Your task to perform on an android device: turn off location history Image 0: 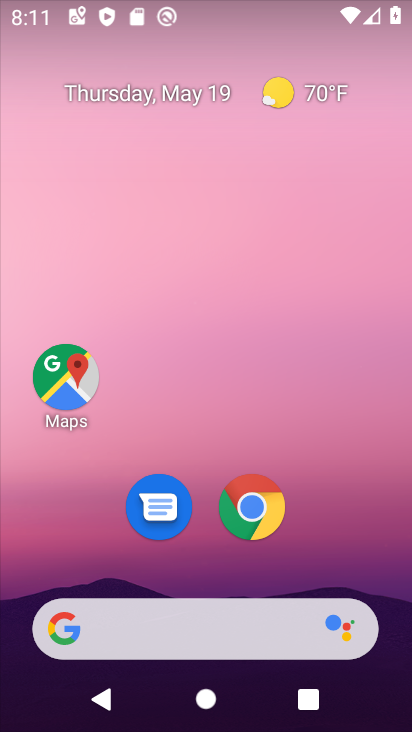
Step 0: drag from (222, 577) to (223, 140)
Your task to perform on an android device: turn off location history Image 1: 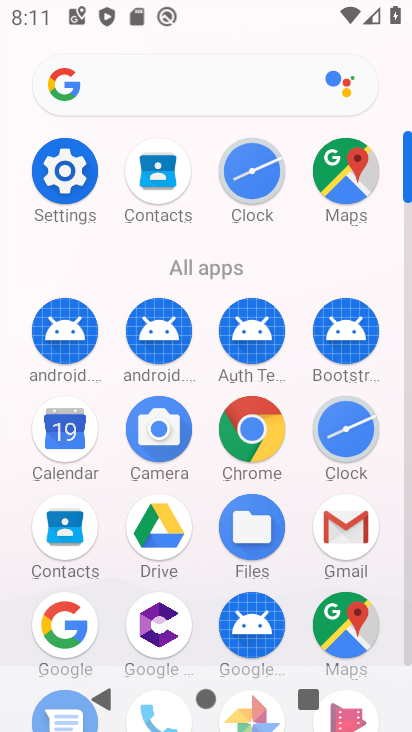
Step 1: click (93, 190)
Your task to perform on an android device: turn off location history Image 2: 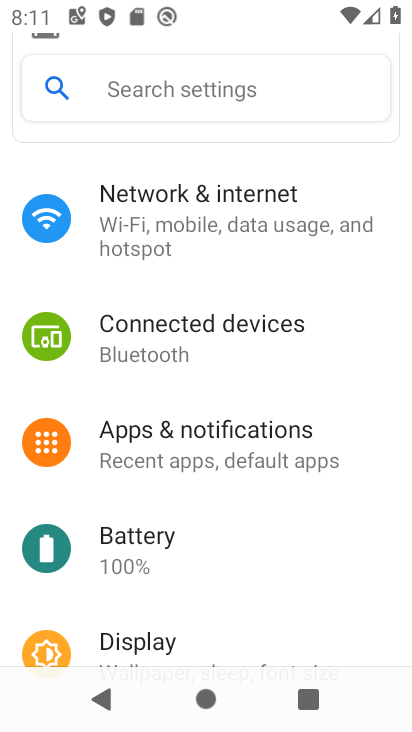
Step 2: drag from (246, 587) to (250, 233)
Your task to perform on an android device: turn off location history Image 3: 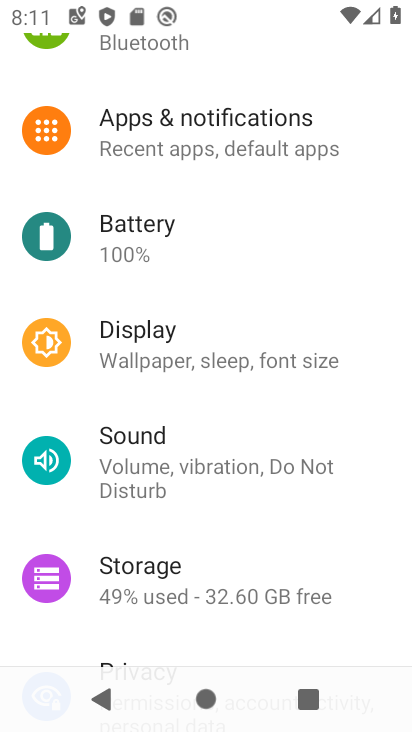
Step 3: drag from (199, 525) to (229, 257)
Your task to perform on an android device: turn off location history Image 4: 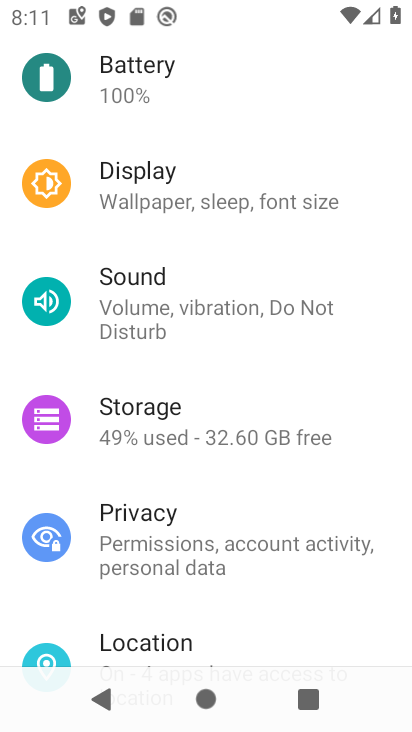
Step 4: drag from (216, 519) to (245, 317)
Your task to perform on an android device: turn off location history Image 5: 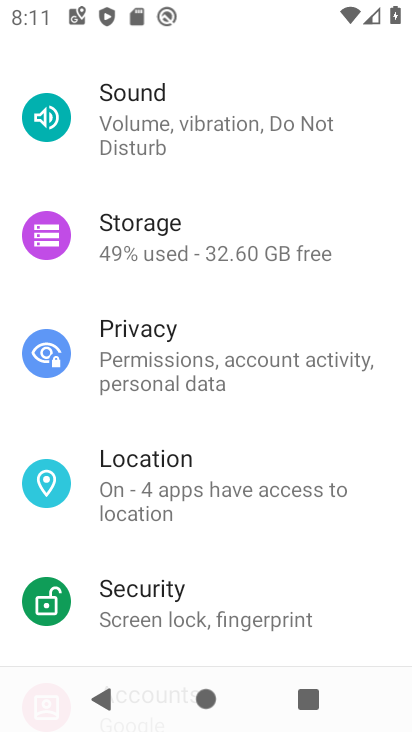
Step 5: click (211, 472)
Your task to perform on an android device: turn off location history Image 6: 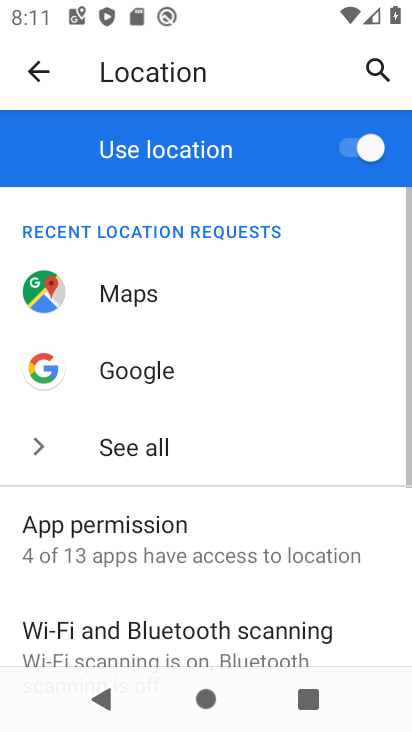
Step 6: drag from (257, 595) to (274, 285)
Your task to perform on an android device: turn off location history Image 7: 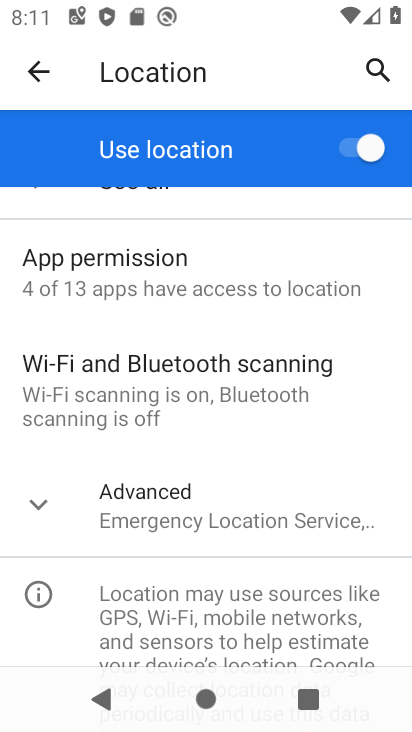
Step 7: click (218, 508)
Your task to perform on an android device: turn off location history Image 8: 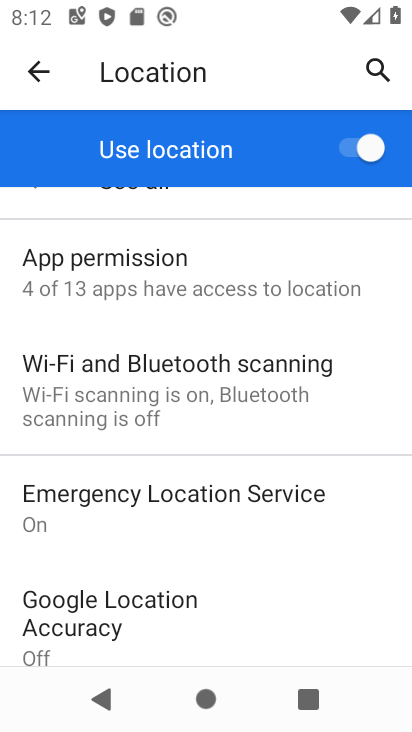
Step 8: drag from (233, 589) to (247, 399)
Your task to perform on an android device: turn off location history Image 9: 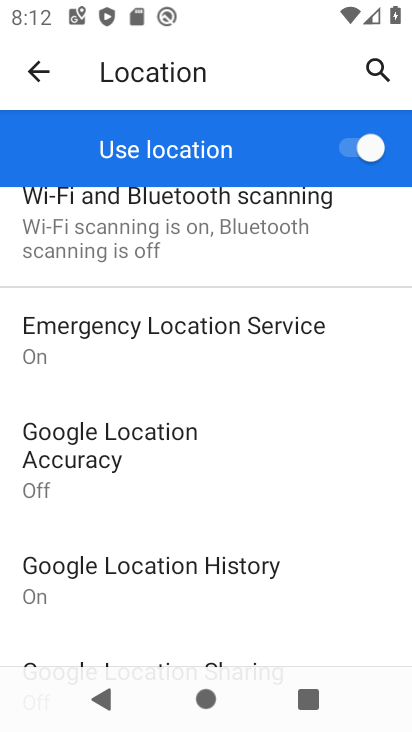
Step 9: click (220, 568)
Your task to perform on an android device: turn off location history Image 10: 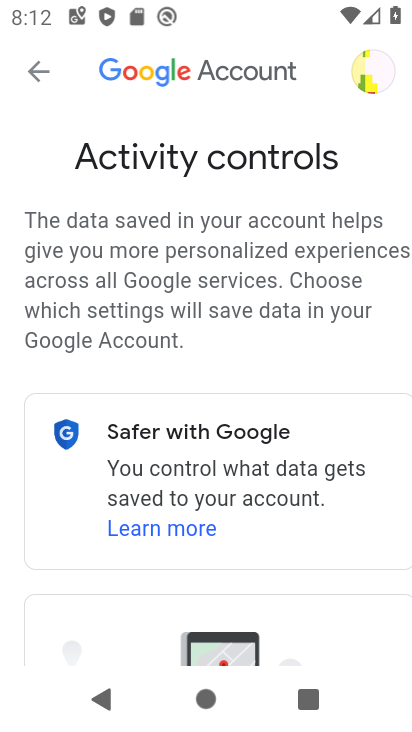
Step 10: drag from (310, 599) to (325, 305)
Your task to perform on an android device: turn off location history Image 11: 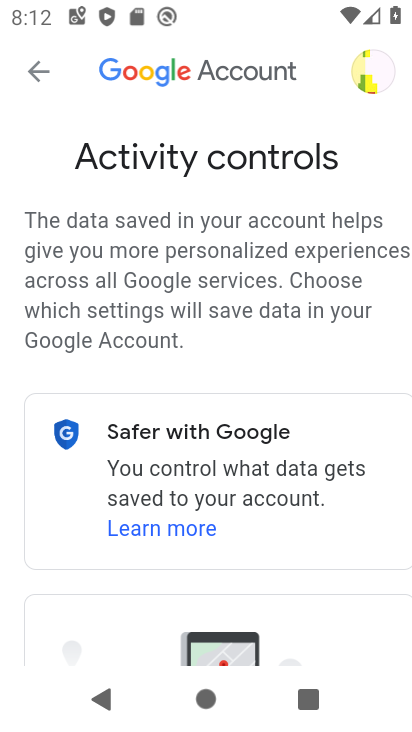
Step 11: drag from (310, 596) to (278, 322)
Your task to perform on an android device: turn off location history Image 12: 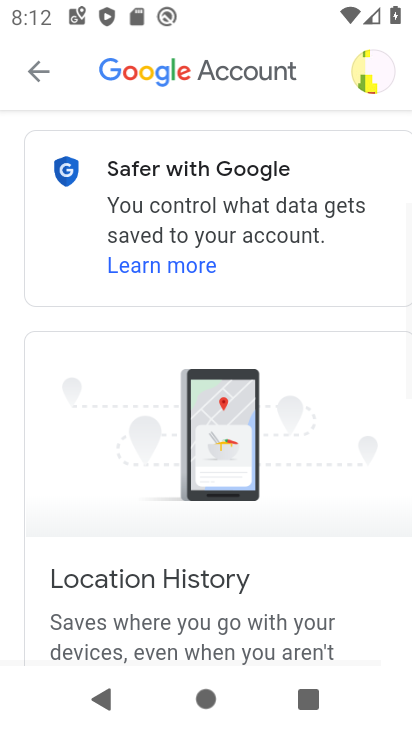
Step 12: drag from (272, 579) to (279, 353)
Your task to perform on an android device: turn off location history Image 13: 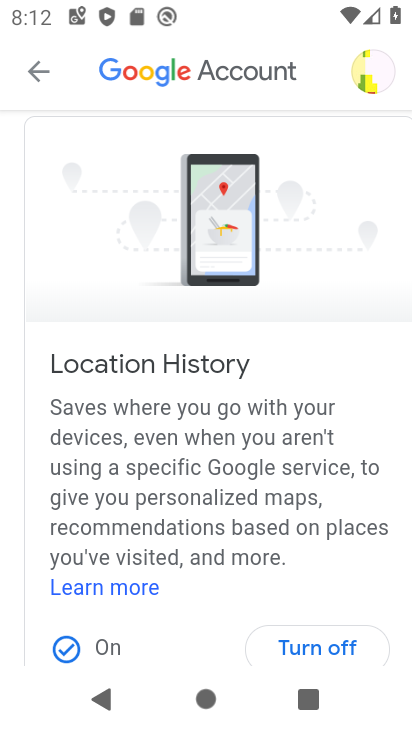
Step 13: drag from (264, 568) to (271, 387)
Your task to perform on an android device: turn off location history Image 14: 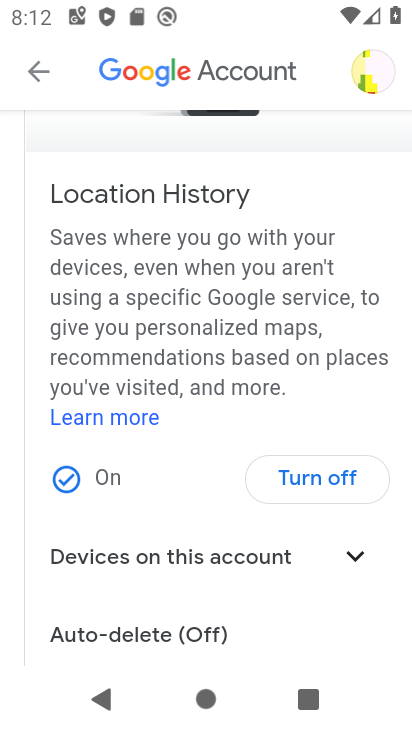
Step 14: click (282, 470)
Your task to perform on an android device: turn off location history Image 15: 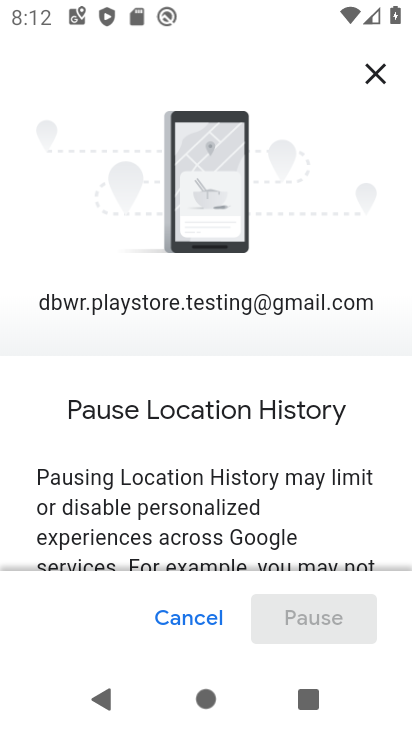
Step 15: drag from (231, 481) to (246, 190)
Your task to perform on an android device: turn off location history Image 16: 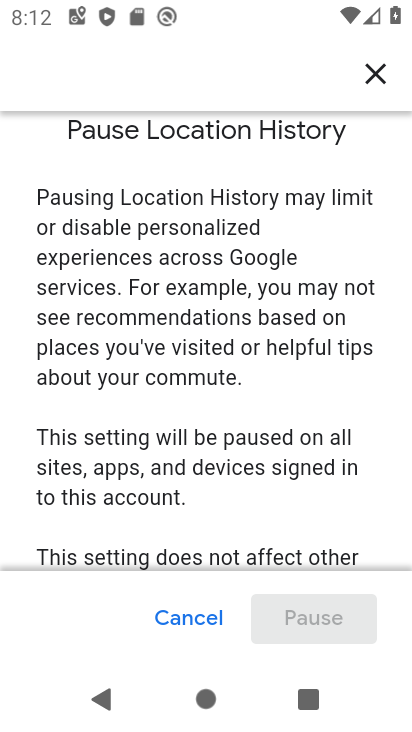
Step 16: drag from (246, 504) to (246, 325)
Your task to perform on an android device: turn off location history Image 17: 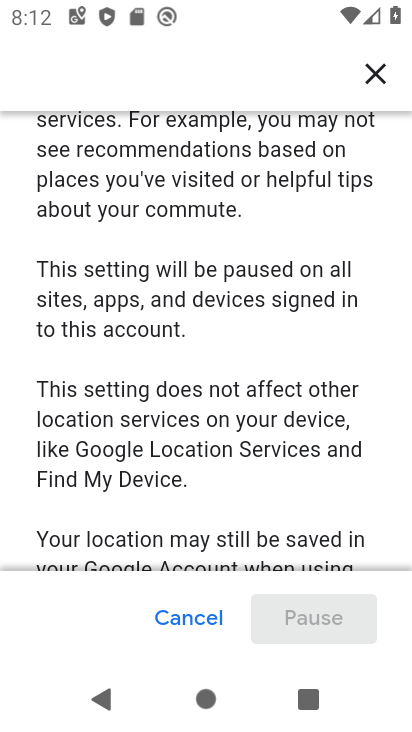
Step 17: drag from (229, 488) to (233, 162)
Your task to perform on an android device: turn off location history Image 18: 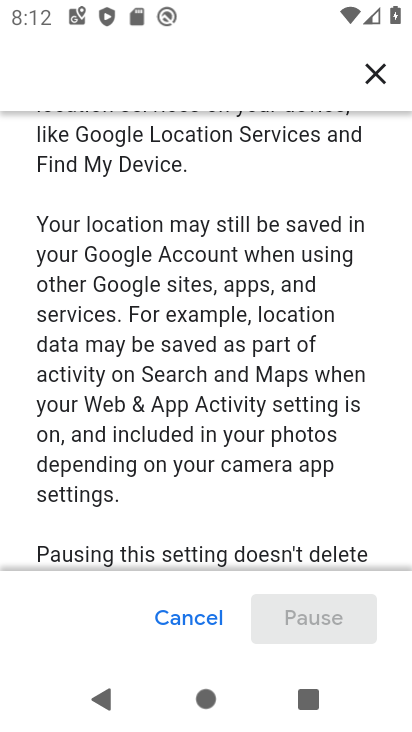
Step 18: drag from (199, 488) to (237, 161)
Your task to perform on an android device: turn off location history Image 19: 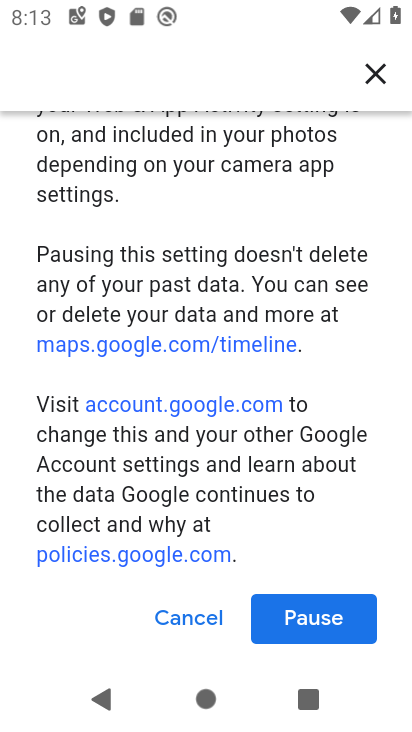
Step 19: click (289, 616)
Your task to perform on an android device: turn off location history Image 20: 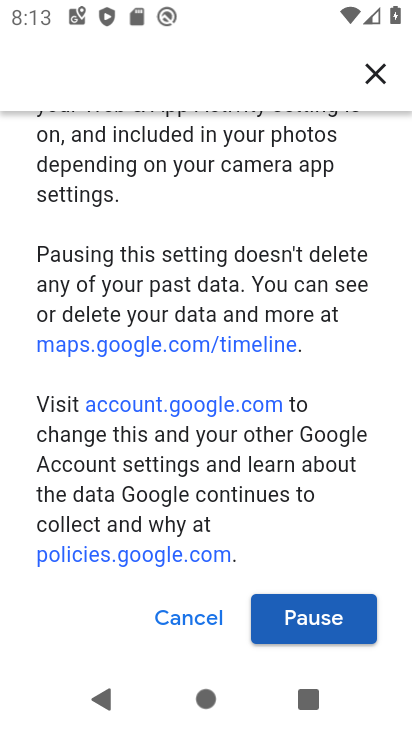
Step 20: click (332, 628)
Your task to perform on an android device: turn off location history Image 21: 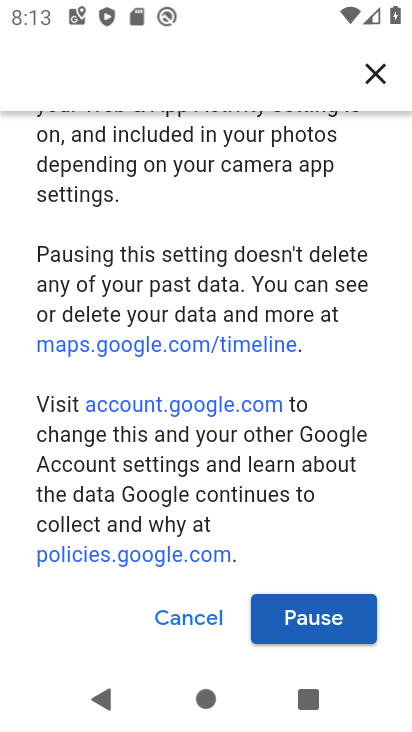
Step 21: click (294, 605)
Your task to perform on an android device: turn off location history Image 22: 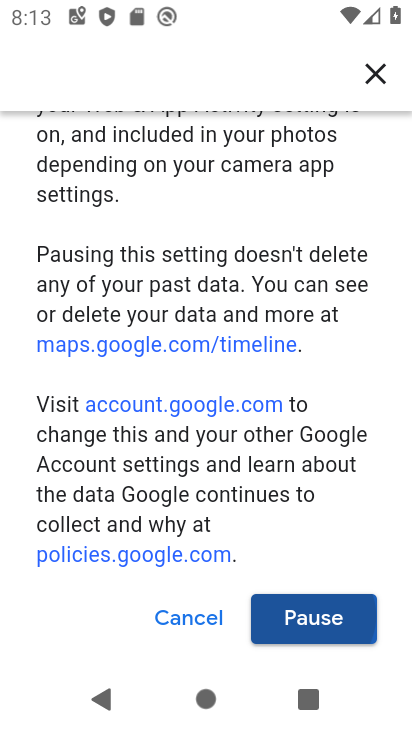
Step 22: task complete